Your task to perform on an android device: Go to display settings Image 0: 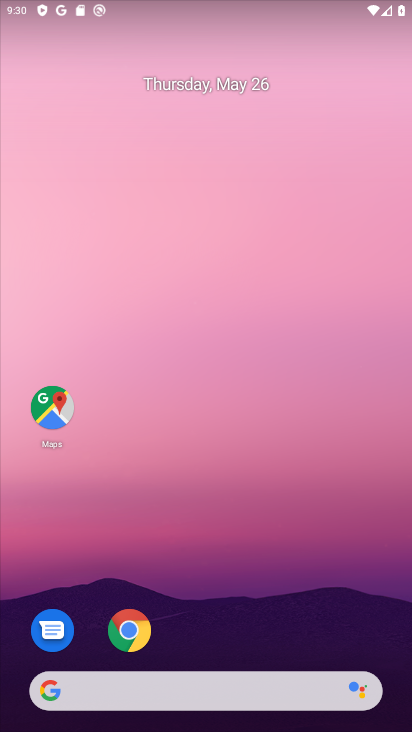
Step 0: drag from (236, 644) to (233, 14)
Your task to perform on an android device: Go to display settings Image 1: 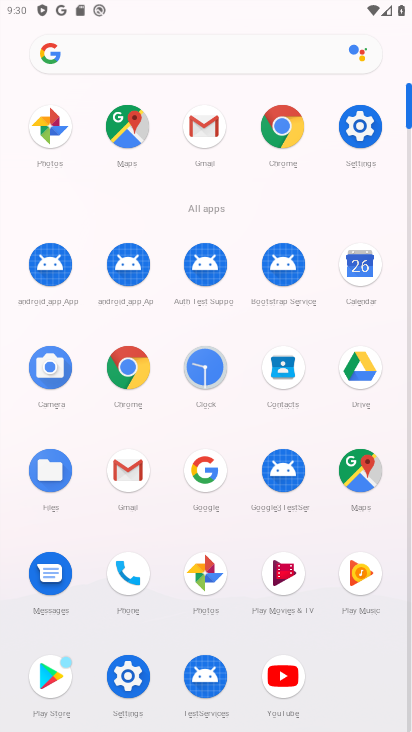
Step 1: click (360, 131)
Your task to perform on an android device: Go to display settings Image 2: 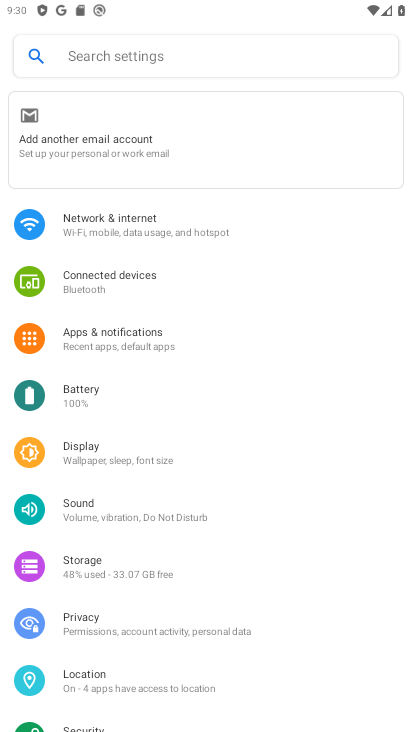
Step 2: click (76, 461)
Your task to perform on an android device: Go to display settings Image 3: 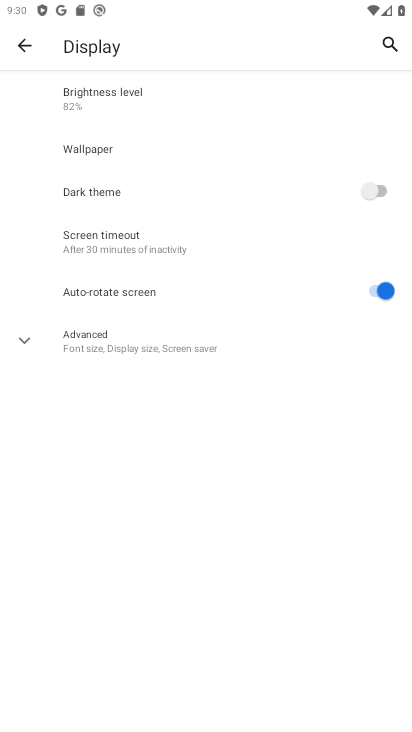
Step 3: task complete